Your task to perform on an android device: make emails show in primary in the gmail app Image 0: 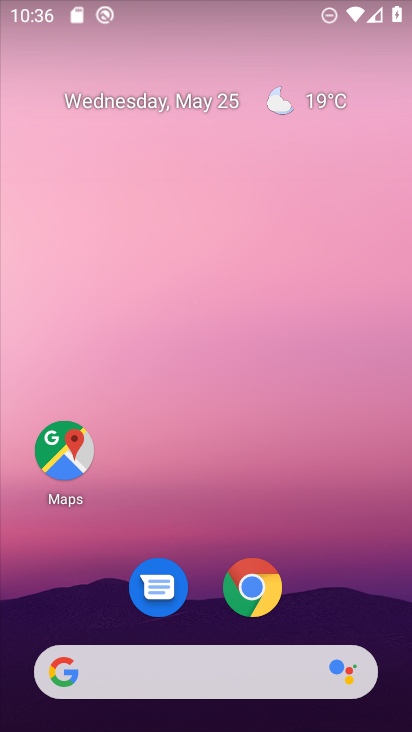
Step 0: drag from (382, 612) to (319, 86)
Your task to perform on an android device: make emails show in primary in the gmail app Image 1: 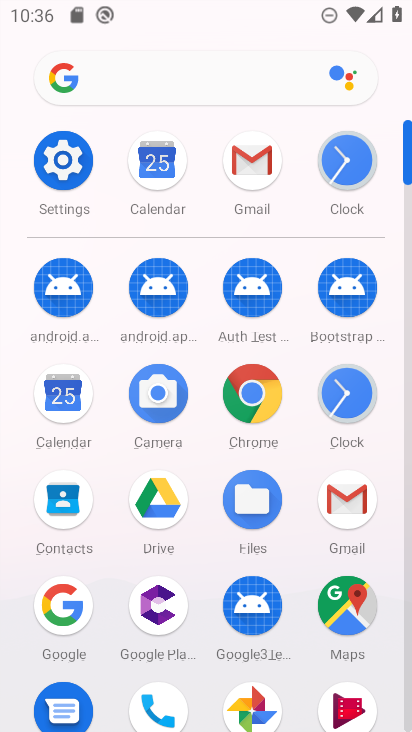
Step 1: click (407, 691)
Your task to perform on an android device: make emails show in primary in the gmail app Image 2: 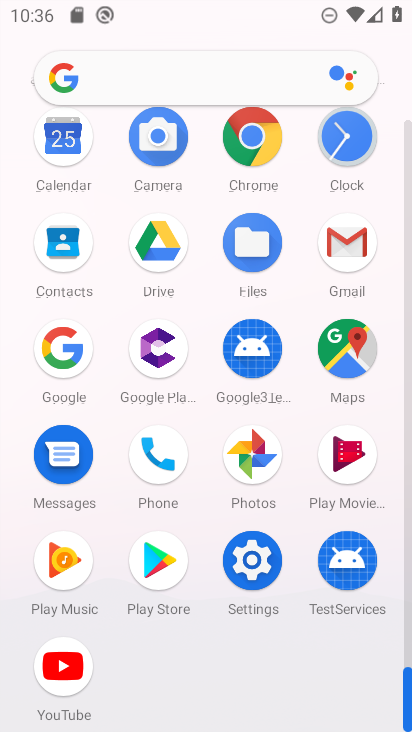
Step 2: click (343, 243)
Your task to perform on an android device: make emails show in primary in the gmail app Image 3: 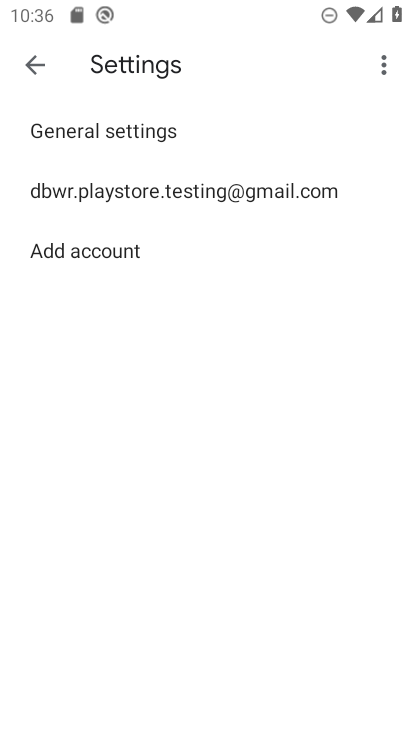
Step 3: click (134, 187)
Your task to perform on an android device: make emails show in primary in the gmail app Image 4: 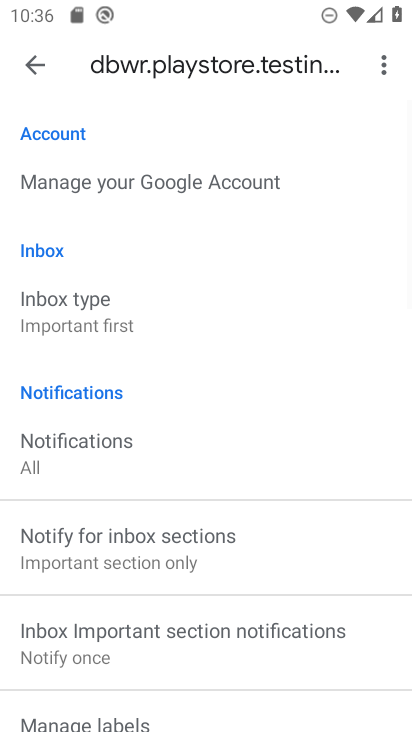
Step 4: click (77, 322)
Your task to perform on an android device: make emails show in primary in the gmail app Image 5: 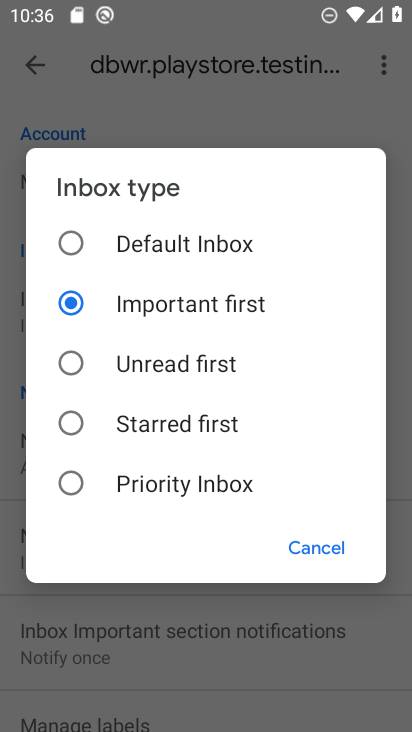
Step 5: click (67, 239)
Your task to perform on an android device: make emails show in primary in the gmail app Image 6: 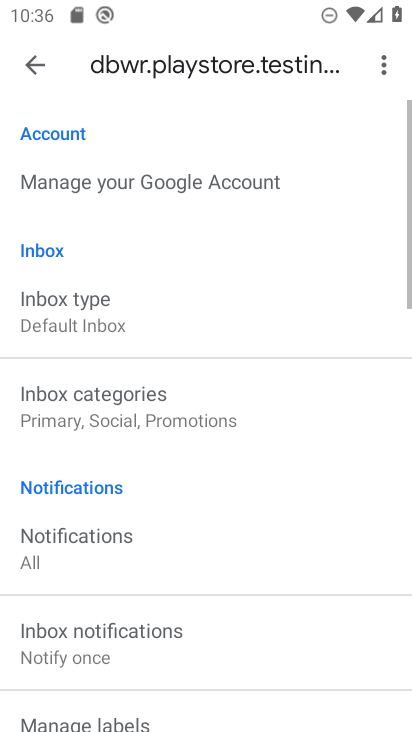
Step 6: click (104, 411)
Your task to perform on an android device: make emails show in primary in the gmail app Image 7: 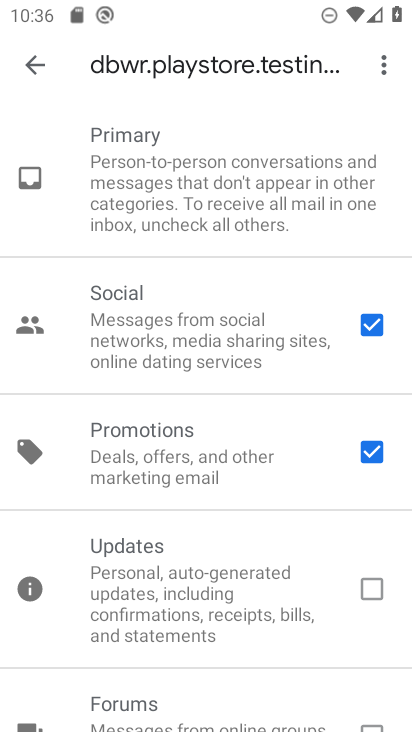
Step 7: click (370, 324)
Your task to perform on an android device: make emails show in primary in the gmail app Image 8: 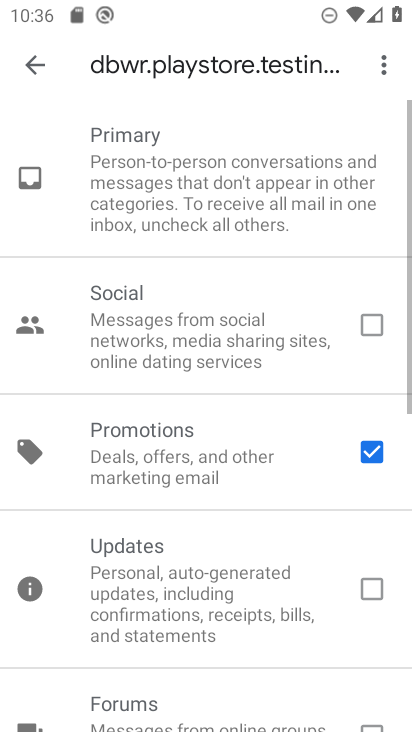
Step 8: click (374, 458)
Your task to perform on an android device: make emails show in primary in the gmail app Image 9: 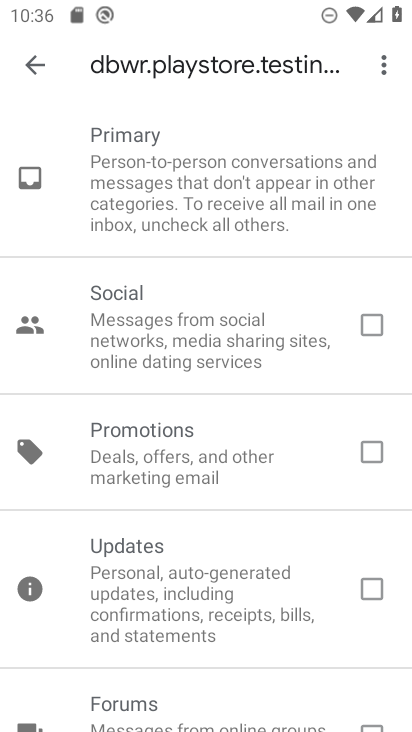
Step 9: task complete